Your task to perform on an android device: change text size in settings app Image 0: 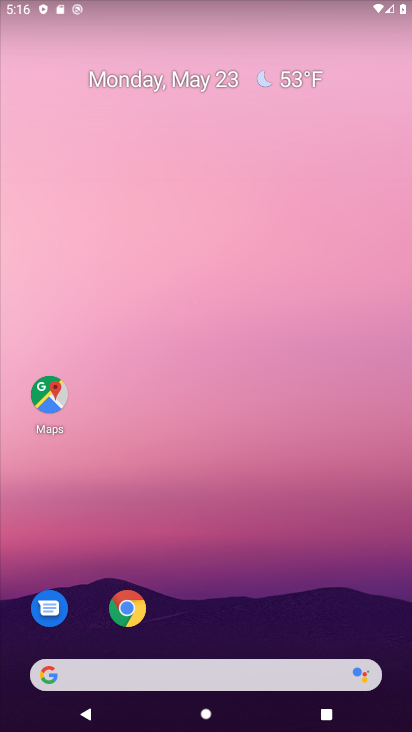
Step 0: press home button
Your task to perform on an android device: change text size in settings app Image 1: 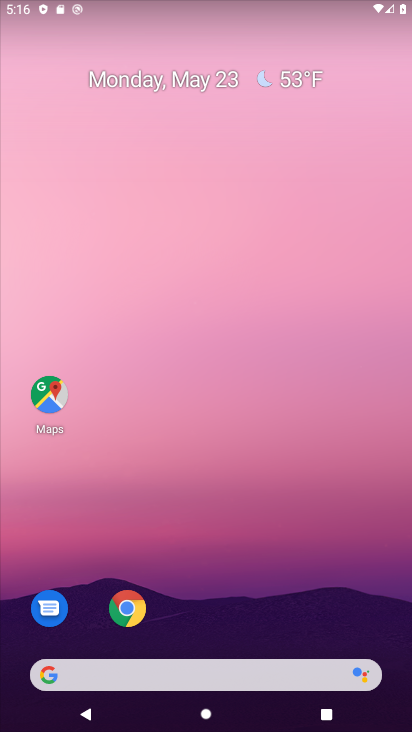
Step 1: press home button
Your task to perform on an android device: change text size in settings app Image 2: 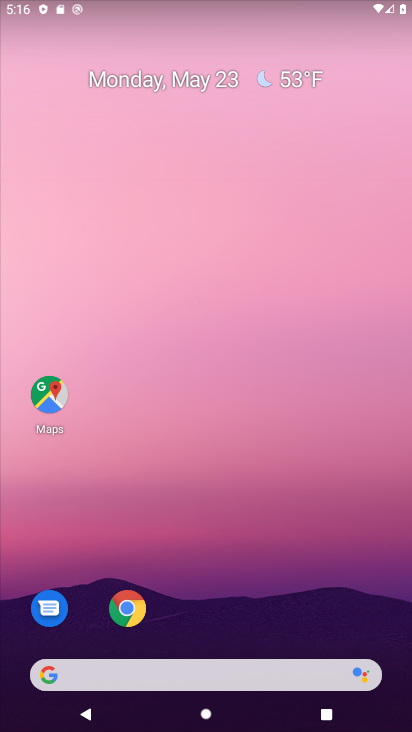
Step 2: drag from (31, 667) to (258, 142)
Your task to perform on an android device: change text size in settings app Image 3: 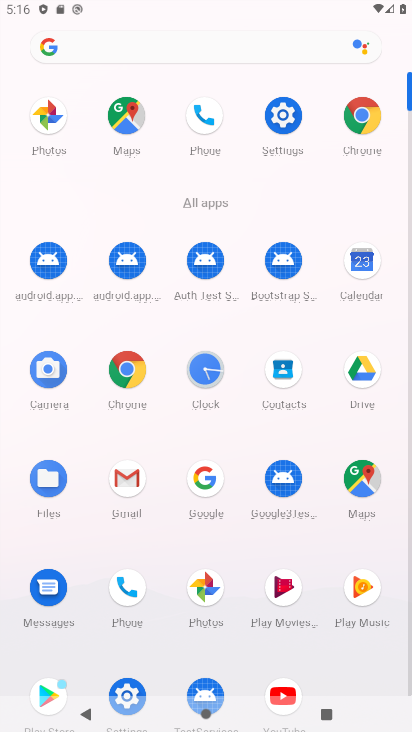
Step 3: click (292, 106)
Your task to perform on an android device: change text size in settings app Image 4: 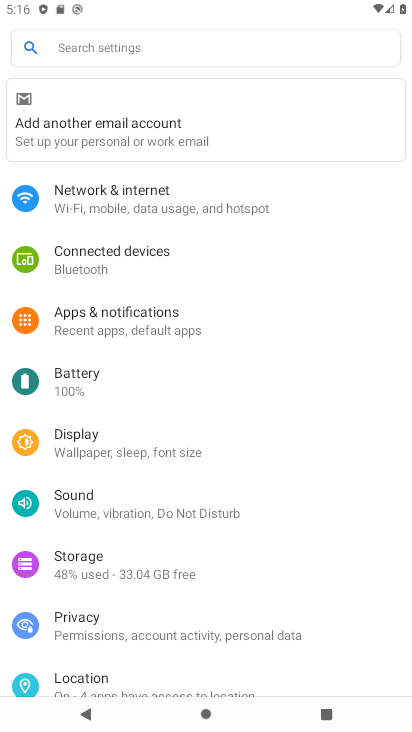
Step 4: drag from (33, 514) to (208, 164)
Your task to perform on an android device: change text size in settings app Image 5: 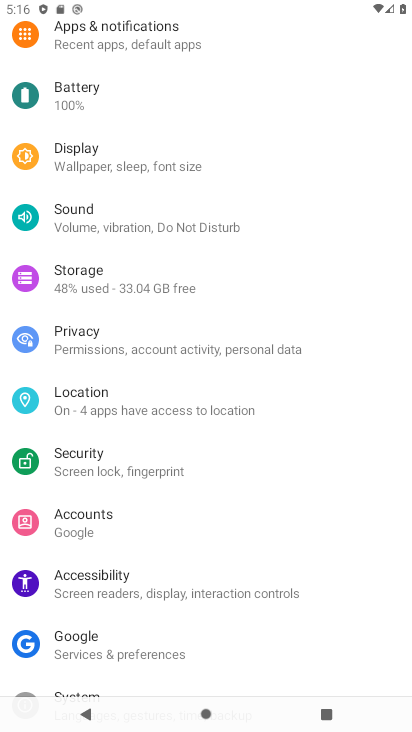
Step 5: drag from (18, 601) to (209, 165)
Your task to perform on an android device: change text size in settings app Image 6: 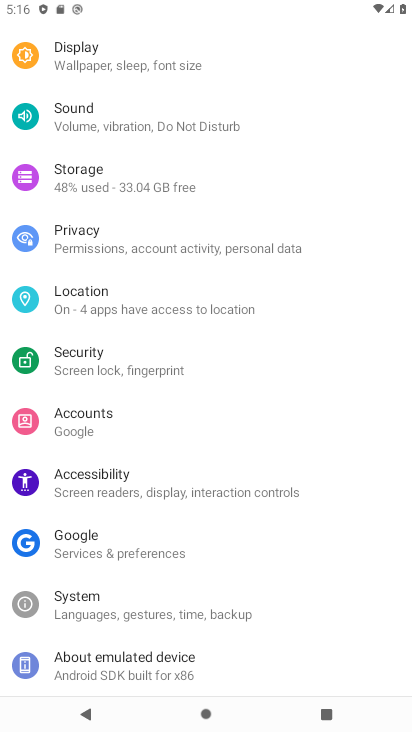
Step 6: click (87, 598)
Your task to perform on an android device: change text size in settings app Image 7: 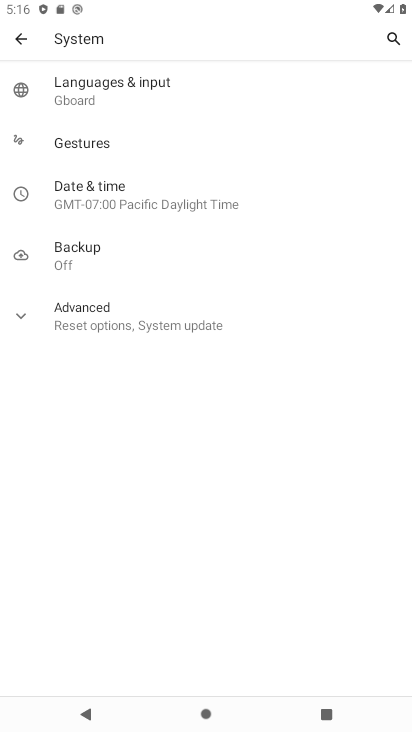
Step 7: press back button
Your task to perform on an android device: change text size in settings app Image 8: 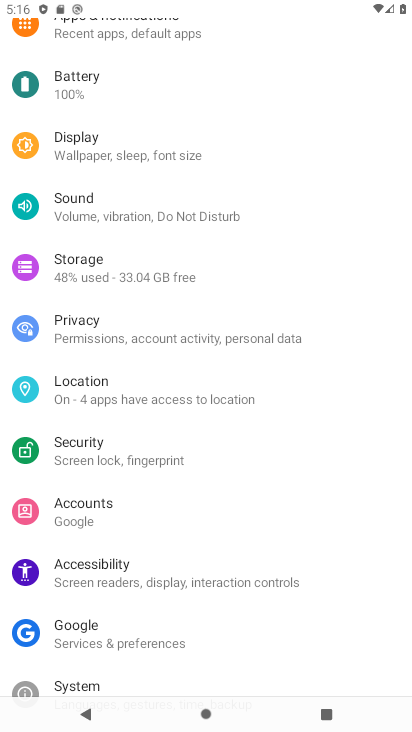
Step 8: click (143, 150)
Your task to perform on an android device: change text size in settings app Image 9: 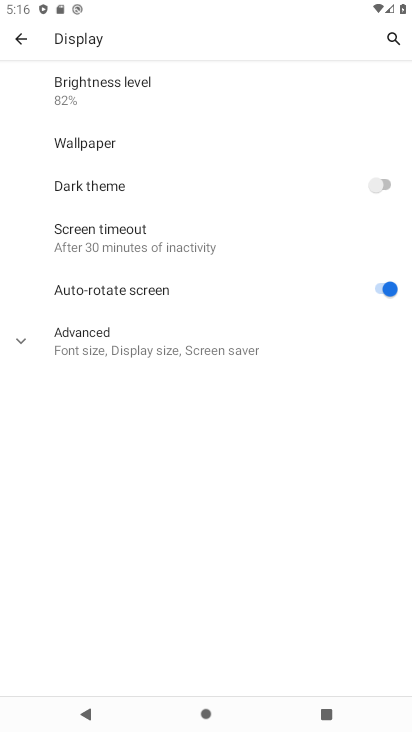
Step 9: click (90, 338)
Your task to perform on an android device: change text size in settings app Image 10: 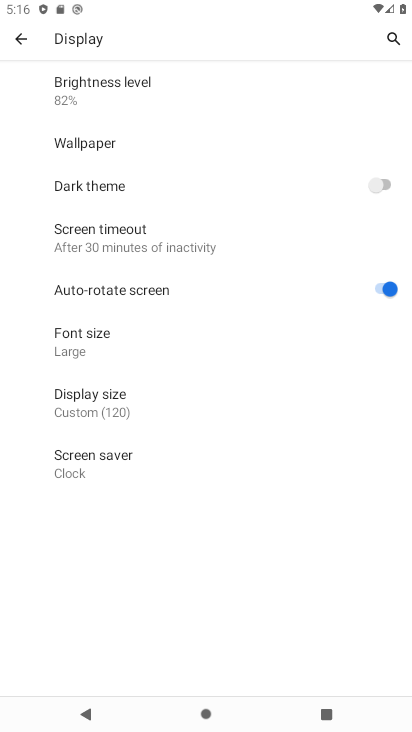
Step 10: click (95, 349)
Your task to perform on an android device: change text size in settings app Image 11: 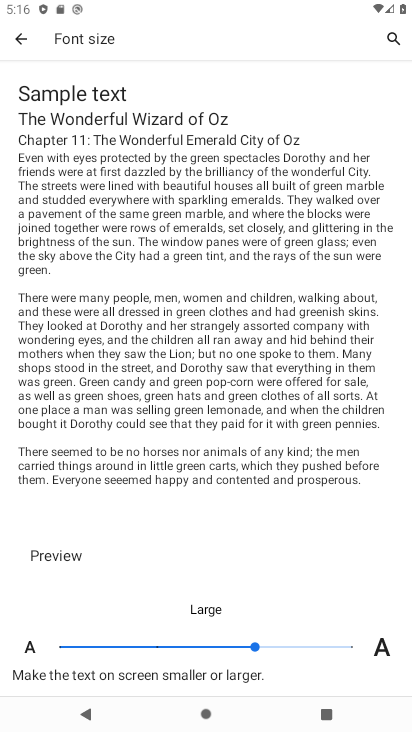
Step 11: drag from (258, 645) to (142, 636)
Your task to perform on an android device: change text size in settings app Image 12: 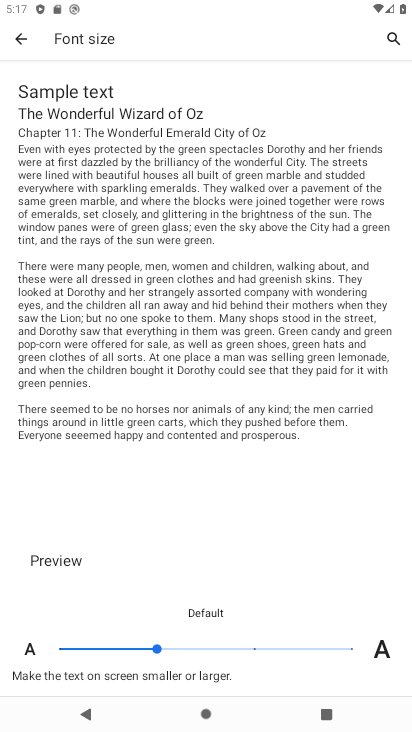
Step 12: click (409, 495)
Your task to perform on an android device: change text size in settings app Image 13: 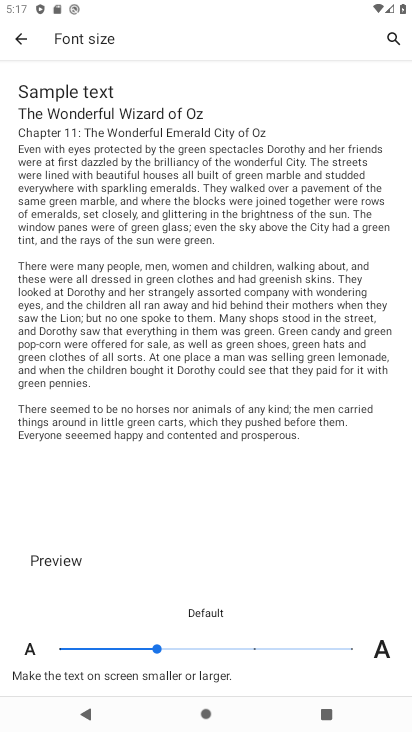
Step 13: task complete